Your task to perform on an android device: Open Youtube and go to the subscriptions tab Image 0: 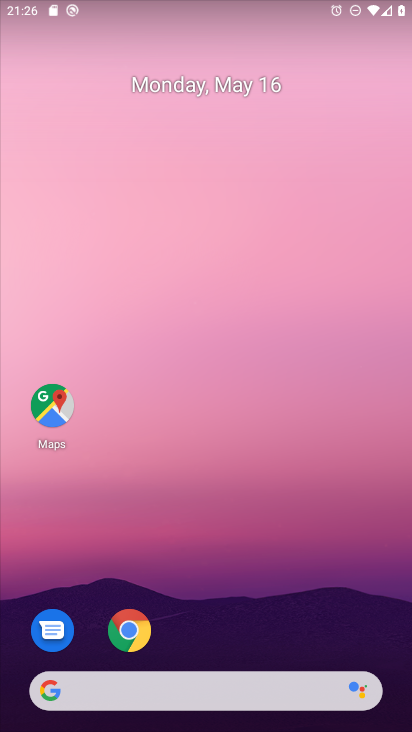
Step 0: click (262, 333)
Your task to perform on an android device: Open Youtube and go to the subscriptions tab Image 1: 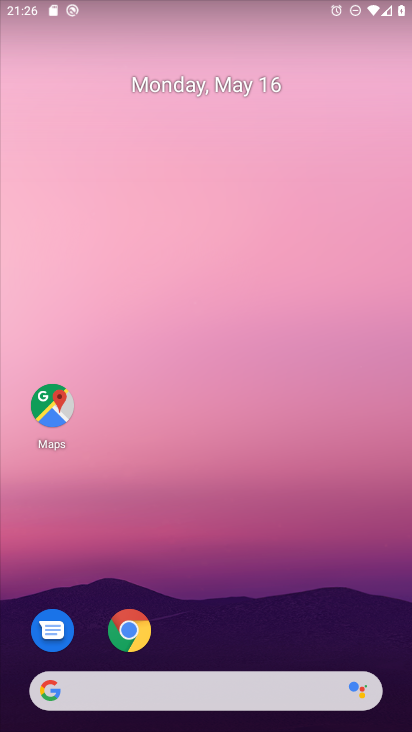
Step 1: drag from (254, 551) to (342, 40)
Your task to perform on an android device: Open Youtube and go to the subscriptions tab Image 2: 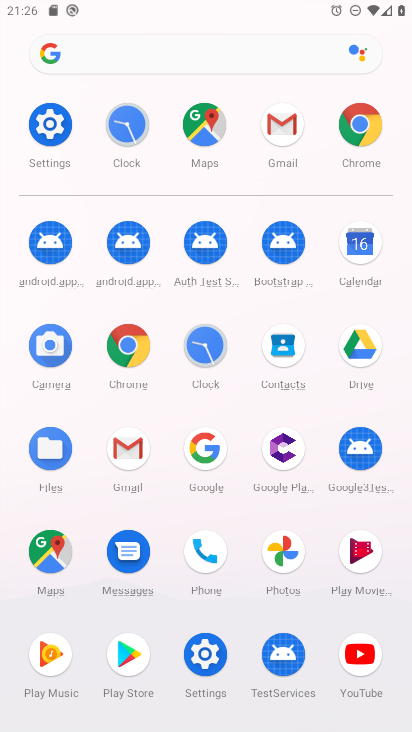
Step 2: click (353, 649)
Your task to perform on an android device: Open Youtube and go to the subscriptions tab Image 3: 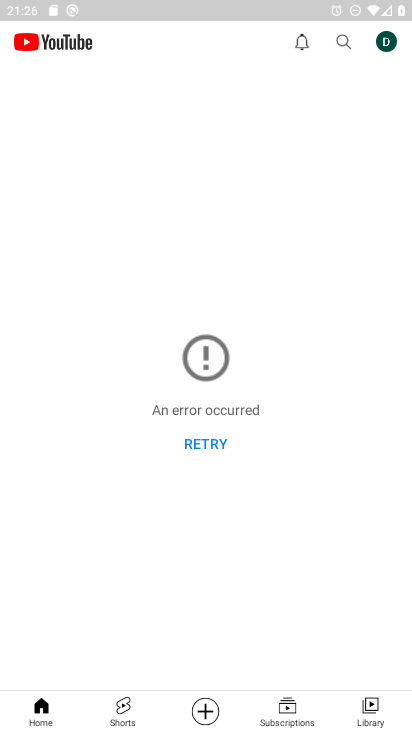
Step 3: click (279, 713)
Your task to perform on an android device: Open Youtube and go to the subscriptions tab Image 4: 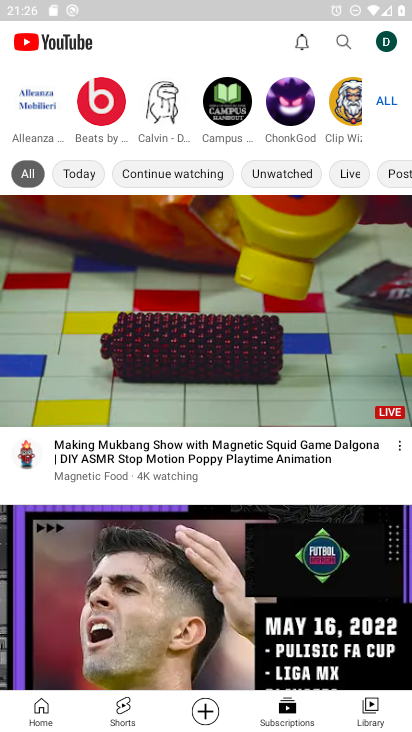
Step 4: task complete